Your task to perform on an android device: Go to notification settings Image 0: 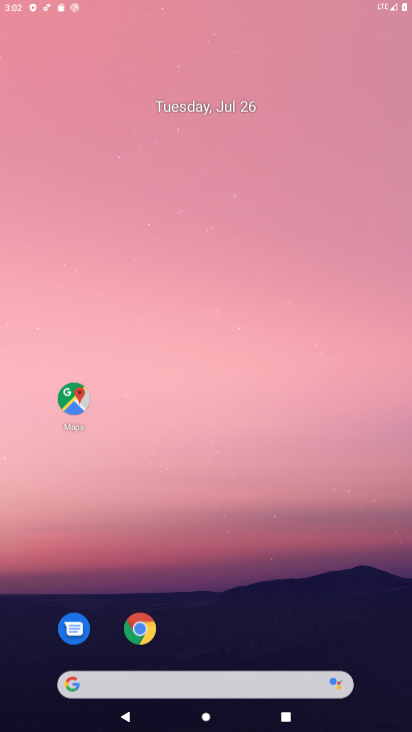
Step 0: press home button
Your task to perform on an android device: Go to notification settings Image 1: 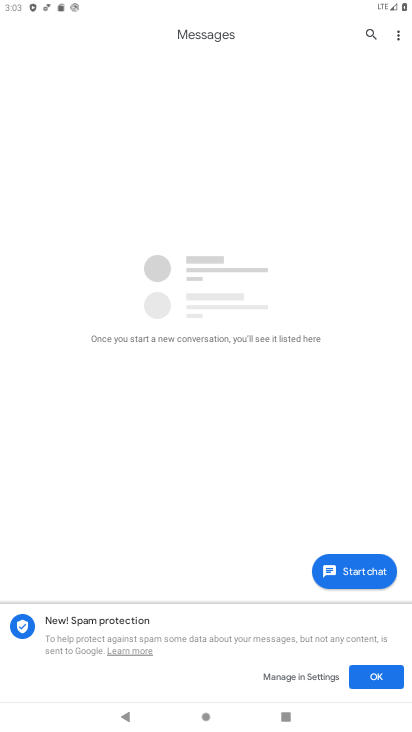
Step 1: press home button
Your task to perform on an android device: Go to notification settings Image 2: 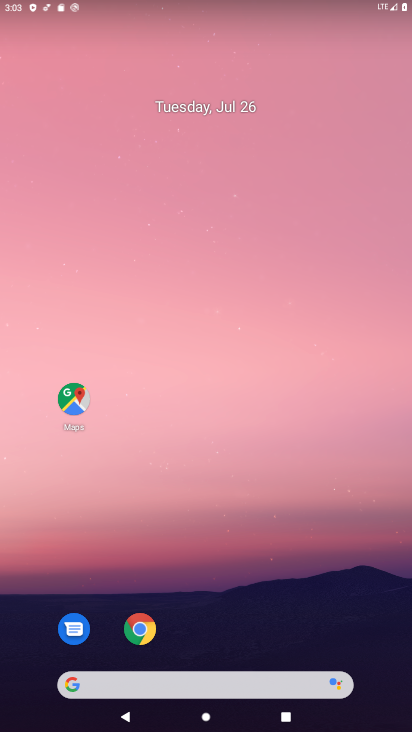
Step 2: drag from (227, 725) to (227, 335)
Your task to perform on an android device: Go to notification settings Image 3: 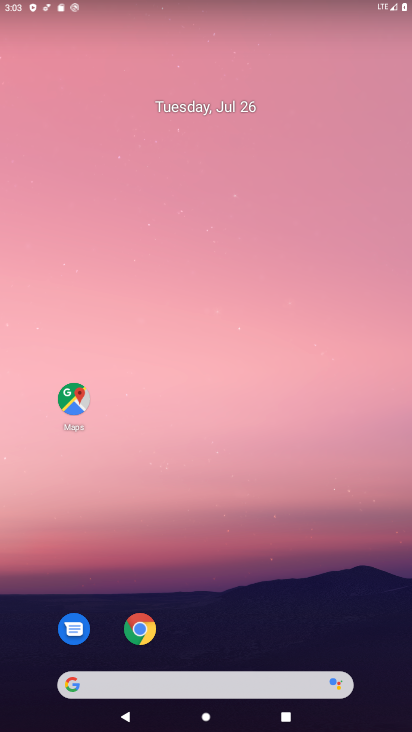
Step 3: drag from (229, 731) to (223, 40)
Your task to perform on an android device: Go to notification settings Image 4: 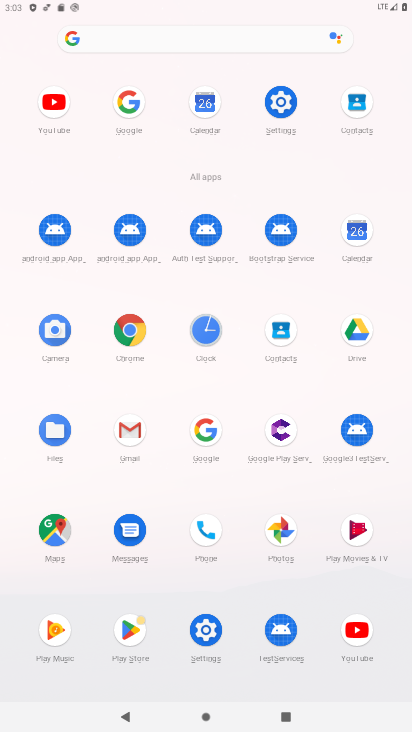
Step 4: click (276, 104)
Your task to perform on an android device: Go to notification settings Image 5: 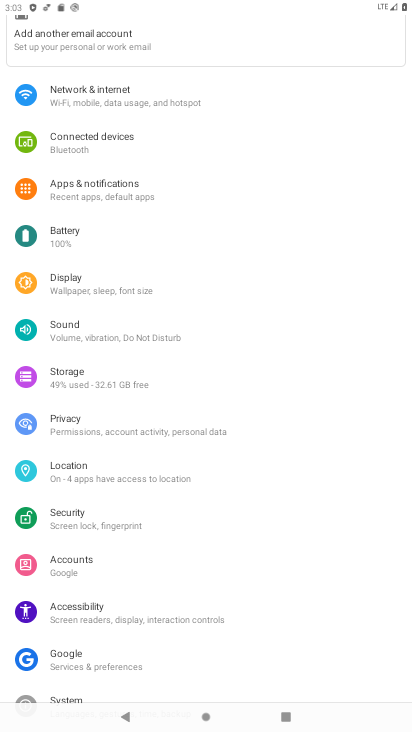
Step 5: click (90, 190)
Your task to perform on an android device: Go to notification settings Image 6: 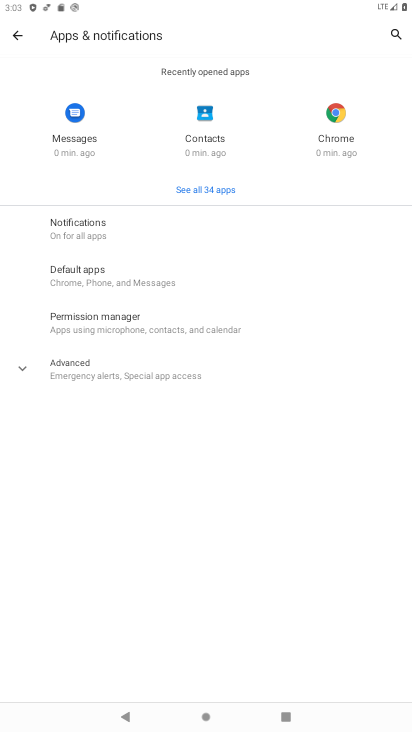
Step 6: click (77, 226)
Your task to perform on an android device: Go to notification settings Image 7: 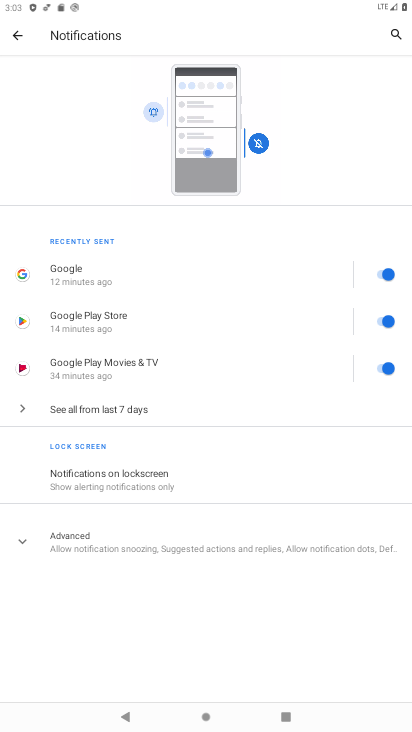
Step 7: task complete